Your task to perform on an android device: Turn on the flashlight Image 0: 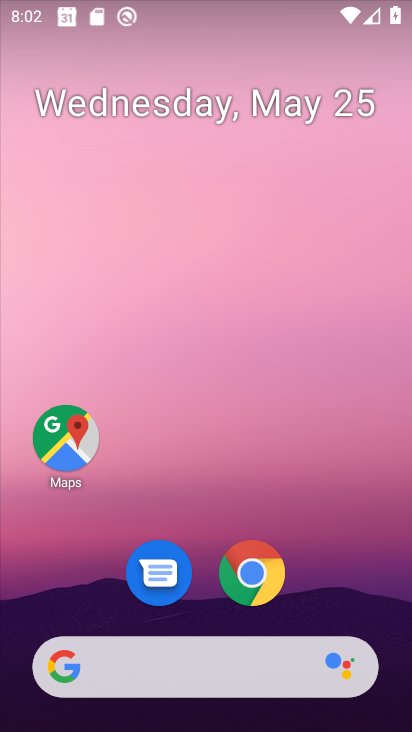
Step 0: drag from (383, 639) to (356, 243)
Your task to perform on an android device: Turn on the flashlight Image 1: 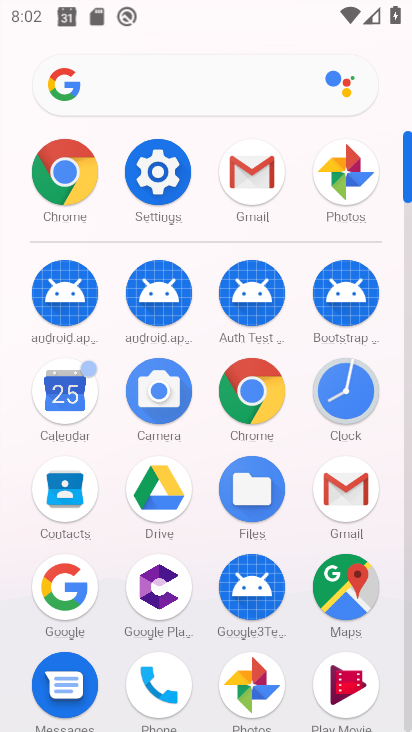
Step 1: click (175, 163)
Your task to perform on an android device: Turn on the flashlight Image 2: 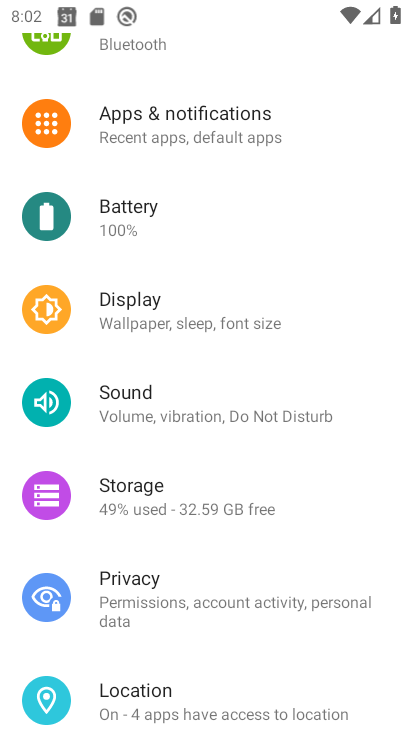
Step 2: click (136, 309)
Your task to perform on an android device: Turn on the flashlight Image 3: 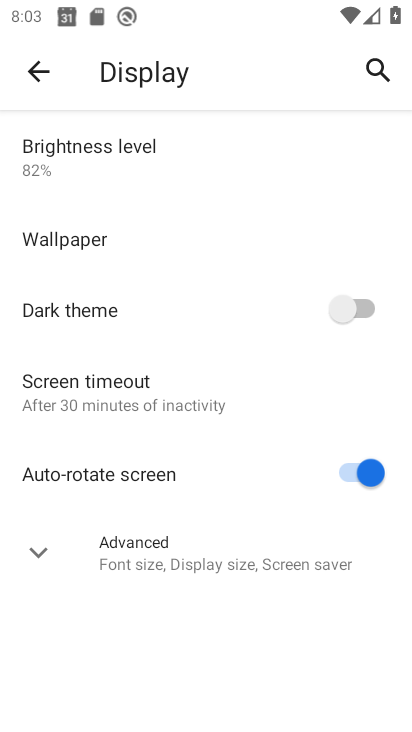
Step 3: task complete